Your task to perform on an android device: open chrome privacy settings Image 0: 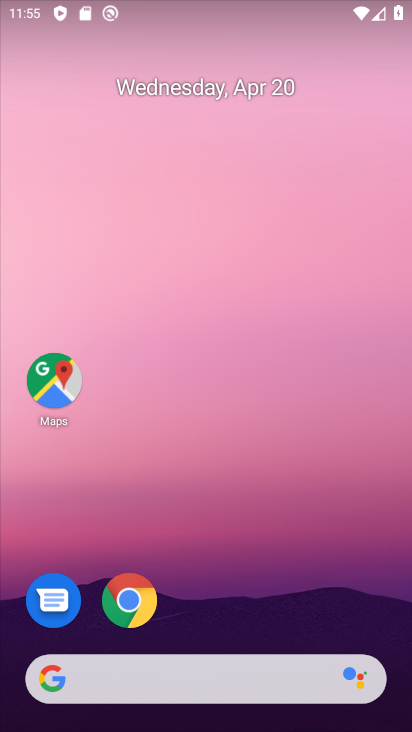
Step 0: click (147, 592)
Your task to perform on an android device: open chrome privacy settings Image 1: 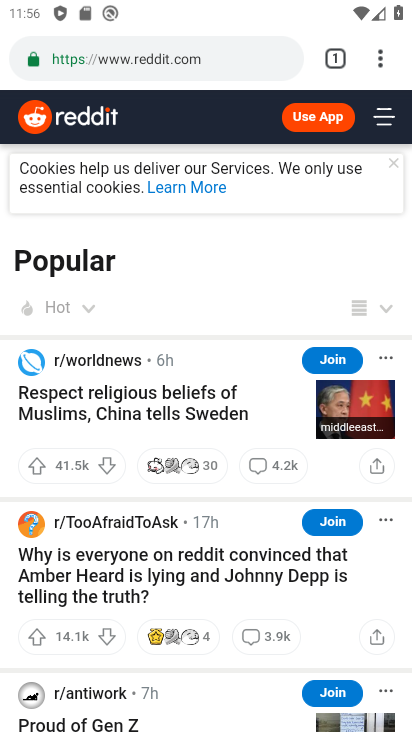
Step 1: click (378, 57)
Your task to perform on an android device: open chrome privacy settings Image 2: 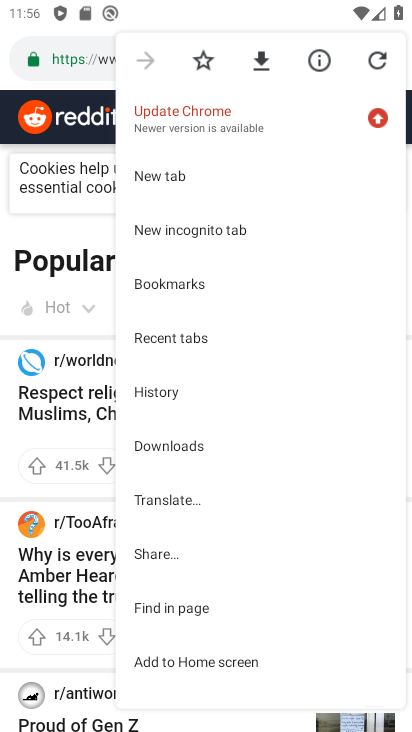
Step 2: drag from (263, 494) to (257, 266)
Your task to perform on an android device: open chrome privacy settings Image 3: 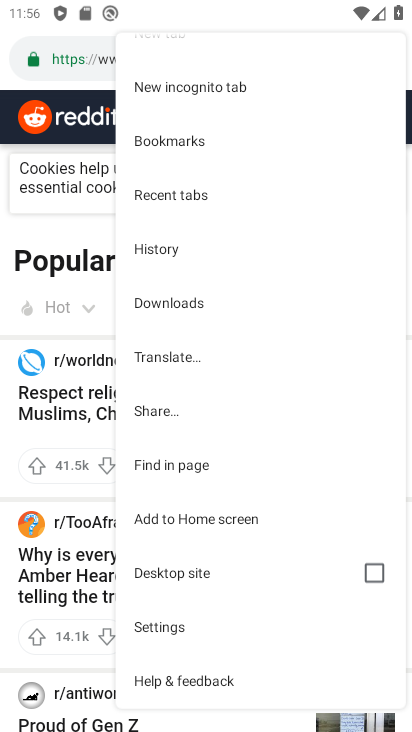
Step 3: click (189, 625)
Your task to perform on an android device: open chrome privacy settings Image 4: 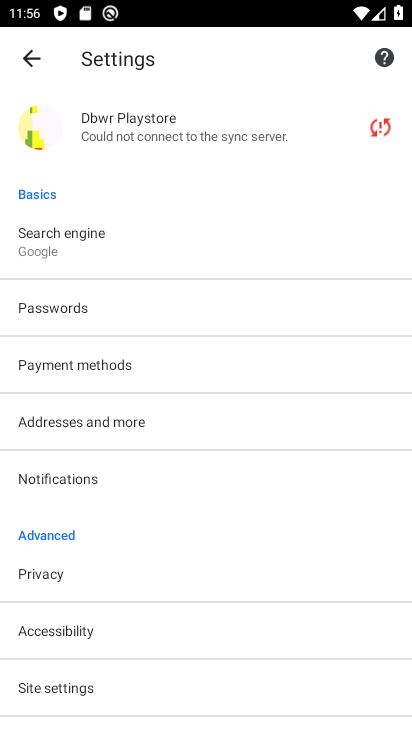
Step 4: click (174, 576)
Your task to perform on an android device: open chrome privacy settings Image 5: 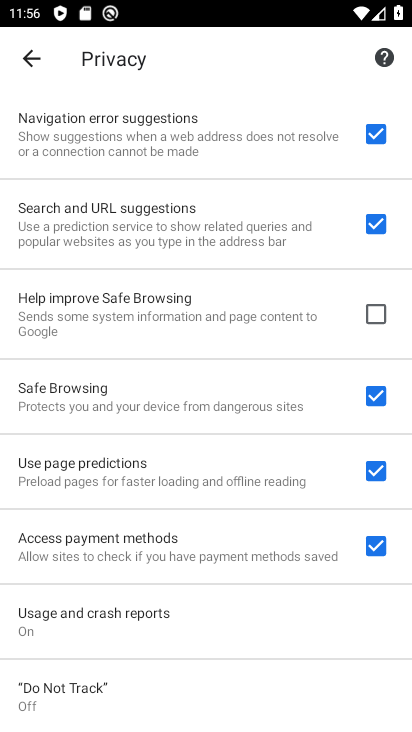
Step 5: task complete